Your task to perform on an android device: Open the Play Movies app and select the watchlist tab. Image 0: 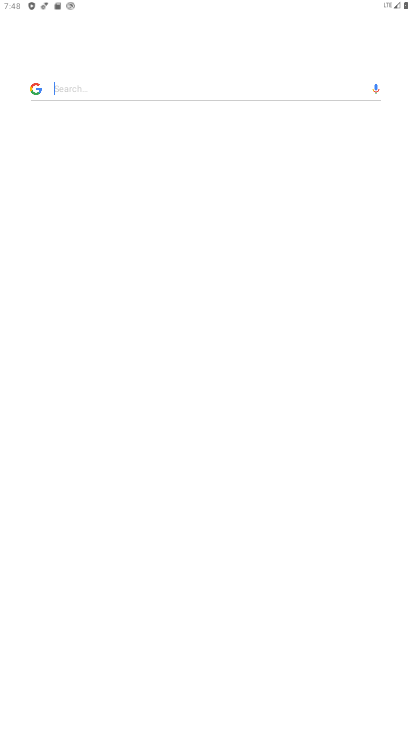
Step 0: drag from (363, 625) to (351, 142)
Your task to perform on an android device: Open the Play Movies app and select the watchlist tab. Image 1: 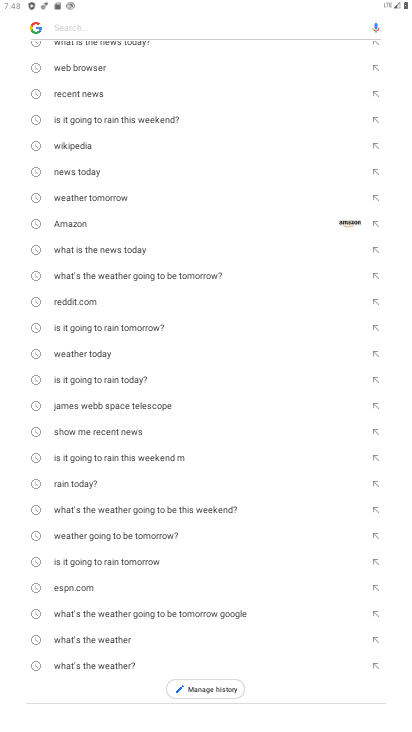
Step 1: press home button
Your task to perform on an android device: Open the Play Movies app and select the watchlist tab. Image 2: 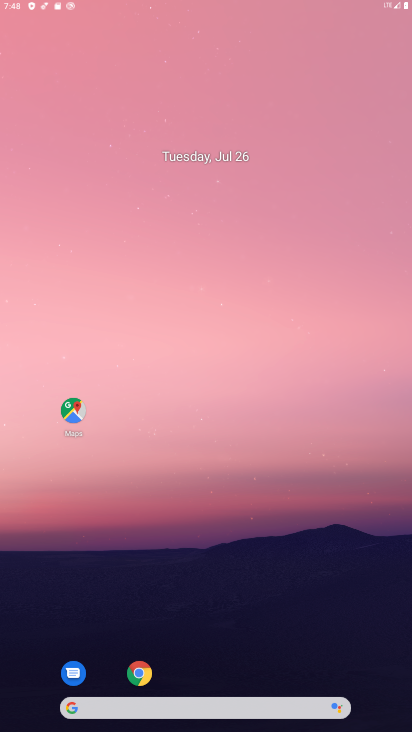
Step 2: drag from (338, 692) to (40, 8)
Your task to perform on an android device: Open the Play Movies app and select the watchlist tab. Image 3: 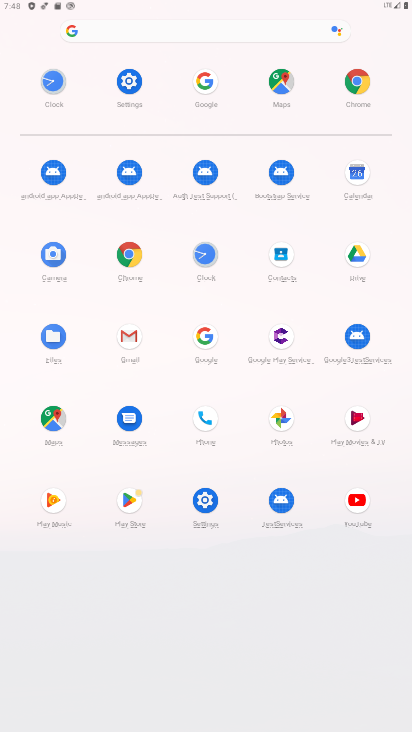
Step 3: click (345, 431)
Your task to perform on an android device: Open the Play Movies app and select the watchlist tab. Image 4: 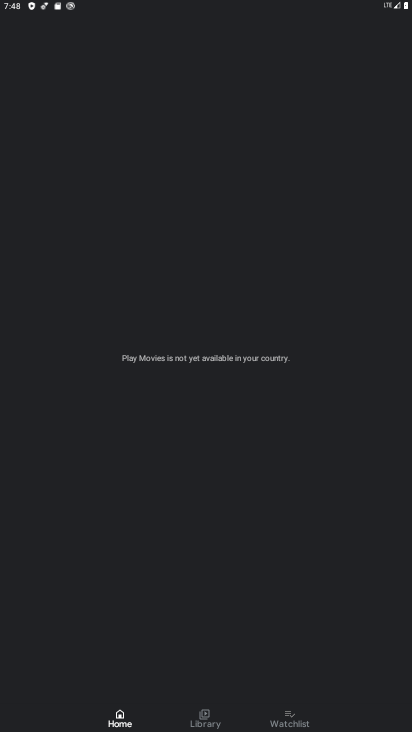
Step 4: click (287, 719)
Your task to perform on an android device: Open the Play Movies app and select the watchlist tab. Image 5: 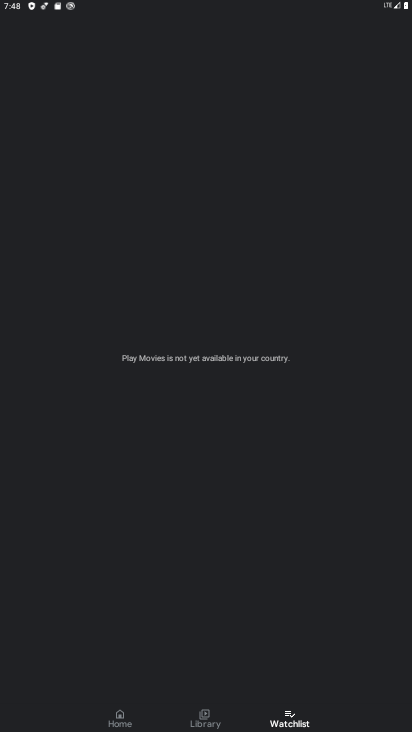
Step 5: task complete